Your task to perform on an android device: Open Maps and search for coffee Image 0: 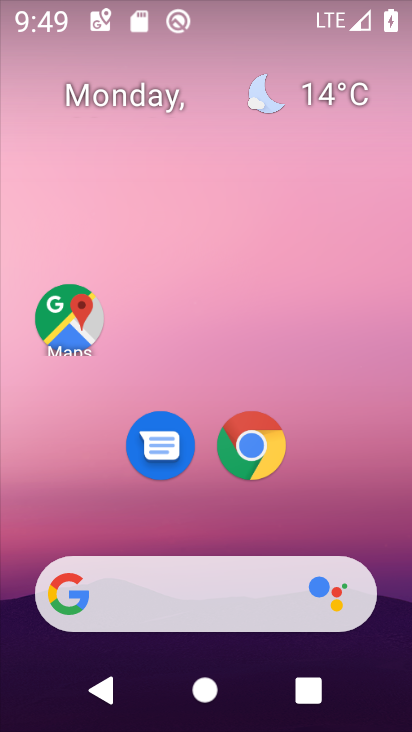
Step 0: drag from (201, 519) to (226, 25)
Your task to perform on an android device: Open Maps and search for coffee Image 1: 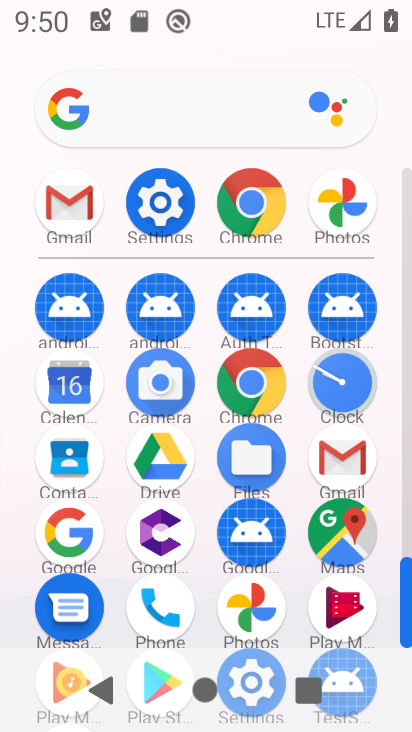
Step 1: click (341, 522)
Your task to perform on an android device: Open Maps and search for coffee Image 2: 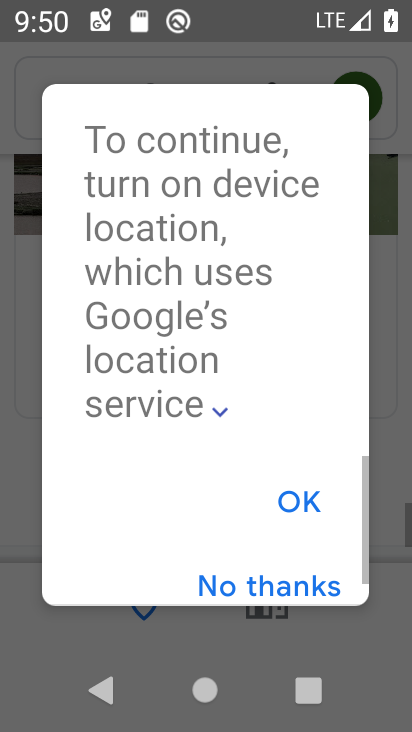
Step 2: click (152, 91)
Your task to perform on an android device: Open Maps and search for coffee Image 3: 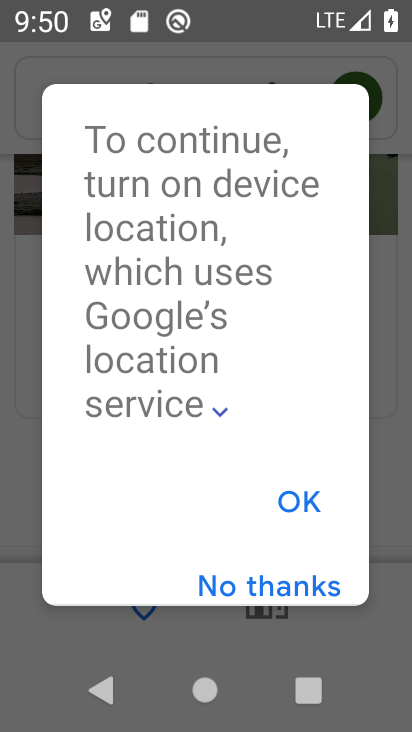
Step 3: click (303, 494)
Your task to perform on an android device: Open Maps and search for coffee Image 4: 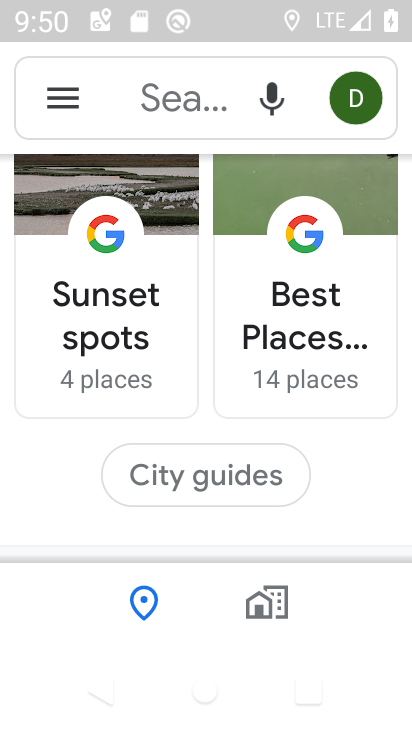
Step 4: click (162, 91)
Your task to perform on an android device: Open Maps and search for coffee Image 5: 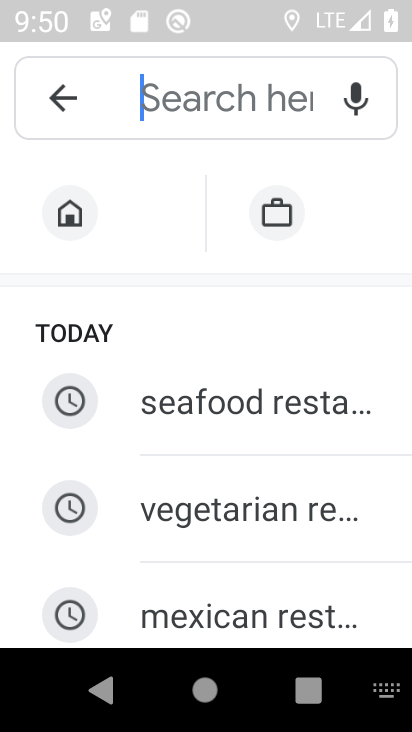
Step 5: type "coffee"
Your task to perform on an android device: Open Maps and search for coffee Image 6: 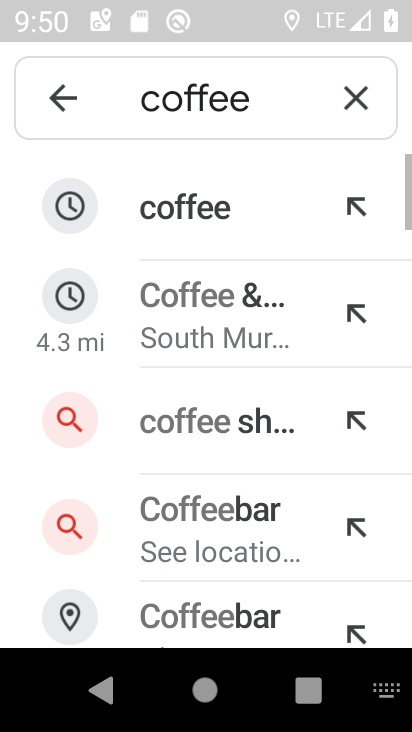
Step 6: click (210, 226)
Your task to perform on an android device: Open Maps and search for coffee Image 7: 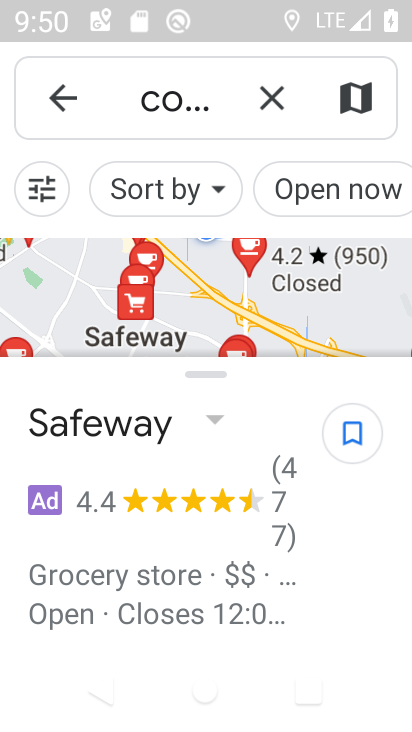
Step 7: task complete